Your task to perform on an android device: Open calendar and show me the second week of next month Image 0: 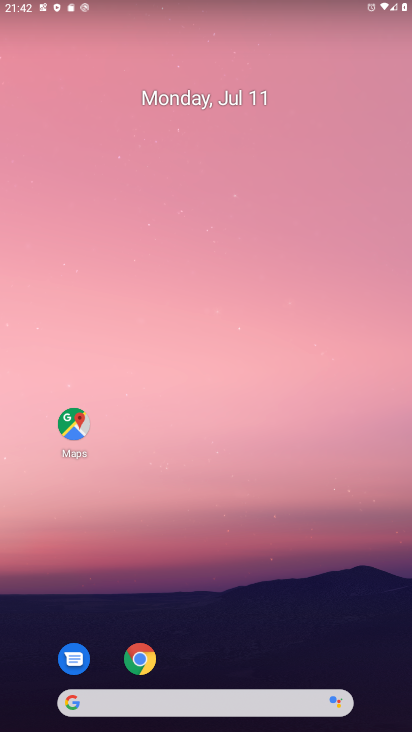
Step 0: drag from (174, 644) to (215, 203)
Your task to perform on an android device: Open calendar and show me the second week of next month Image 1: 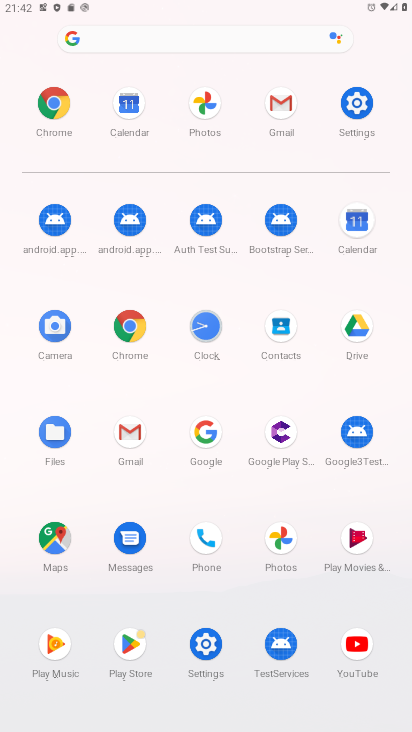
Step 1: click (353, 212)
Your task to perform on an android device: Open calendar and show me the second week of next month Image 2: 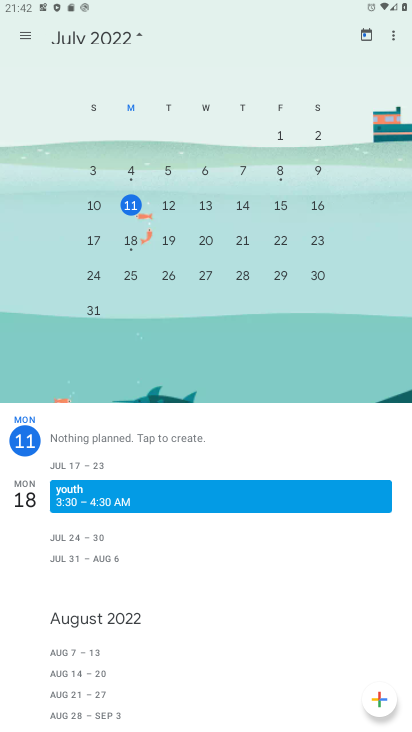
Step 2: drag from (234, 519) to (265, 245)
Your task to perform on an android device: Open calendar and show me the second week of next month Image 3: 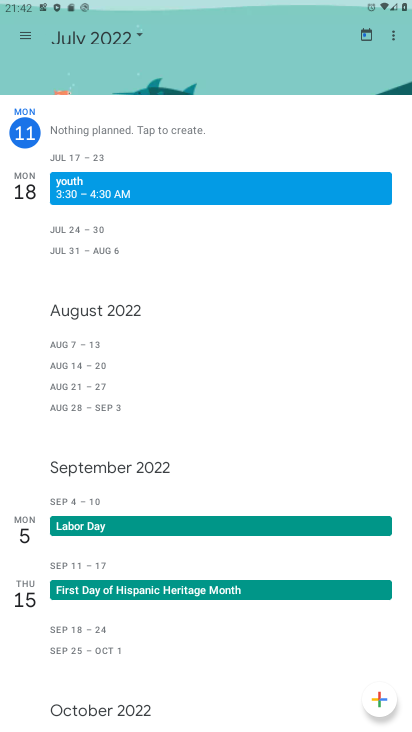
Step 3: drag from (250, 322) to (372, 724)
Your task to perform on an android device: Open calendar and show me the second week of next month Image 4: 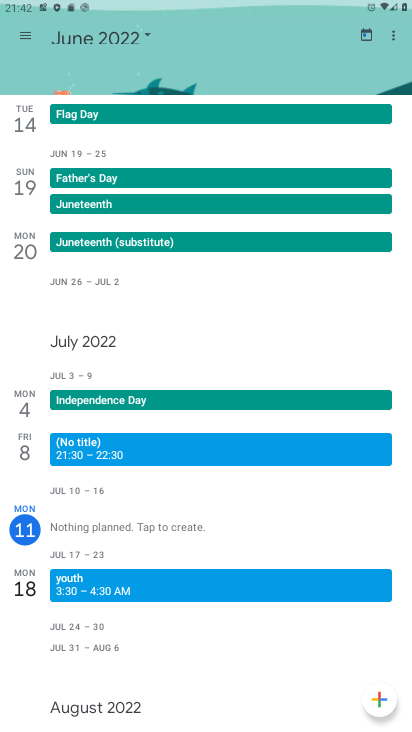
Step 4: click (128, 41)
Your task to perform on an android device: Open calendar and show me the second week of next month Image 5: 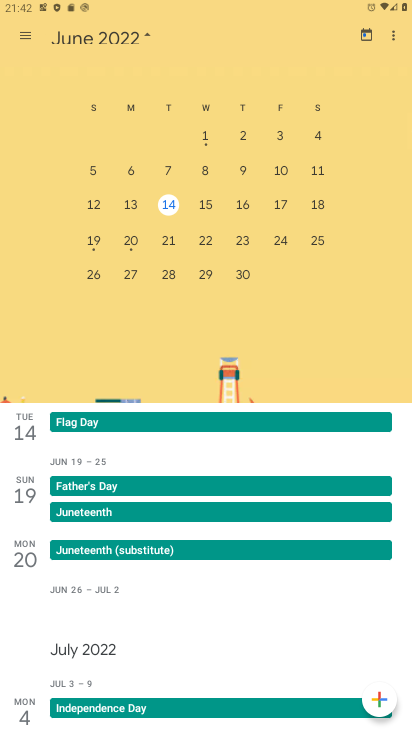
Step 5: drag from (291, 217) to (34, 488)
Your task to perform on an android device: Open calendar and show me the second week of next month Image 6: 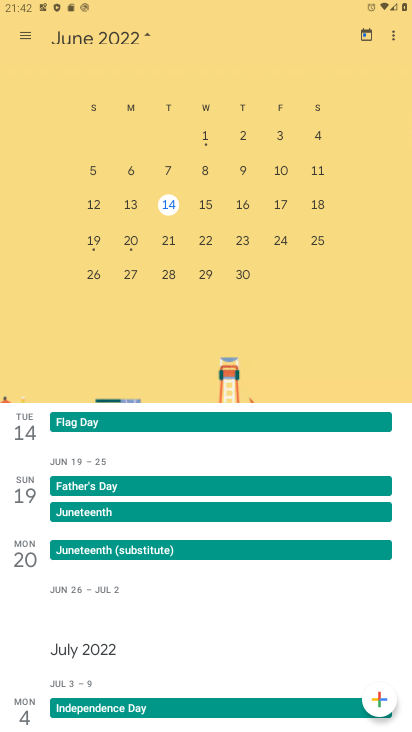
Step 6: drag from (295, 231) to (15, 410)
Your task to perform on an android device: Open calendar and show me the second week of next month Image 7: 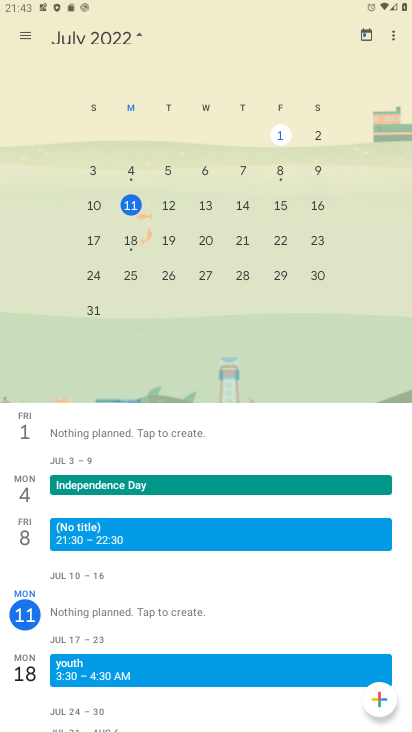
Step 7: drag from (207, 562) to (209, 475)
Your task to perform on an android device: Open calendar and show me the second week of next month Image 8: 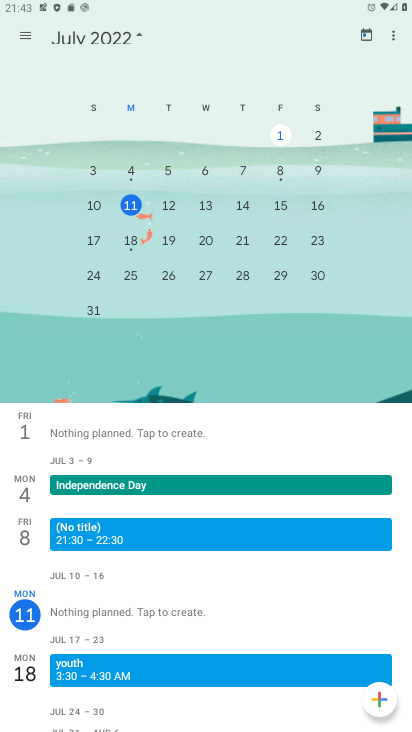
Step 8: drag from (302, 214) to (23, 281)
Your task to perform on an android device: Open calendar and show me the second week of next month Image 9: 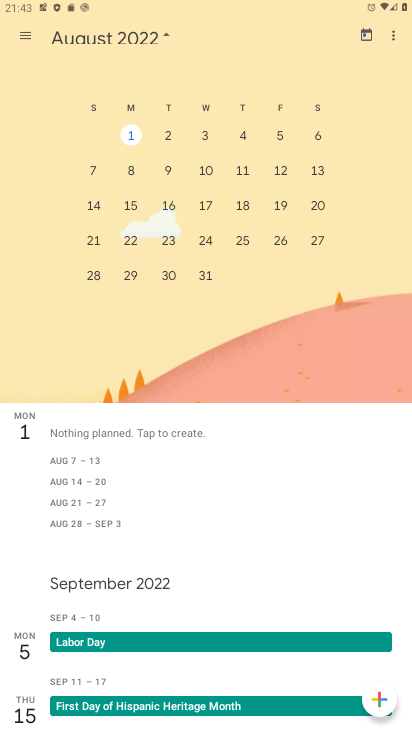
Step 9: click (244, 168)
Your task to perform on an android device: Open calendar and show me the second week of next month Image 10: 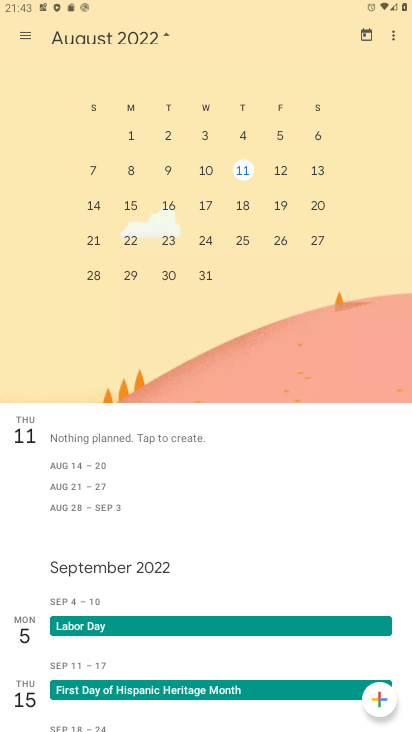
Step 10: task complete